Your task to perform on an android device: Is it going to rain tomorrow? Image 0: 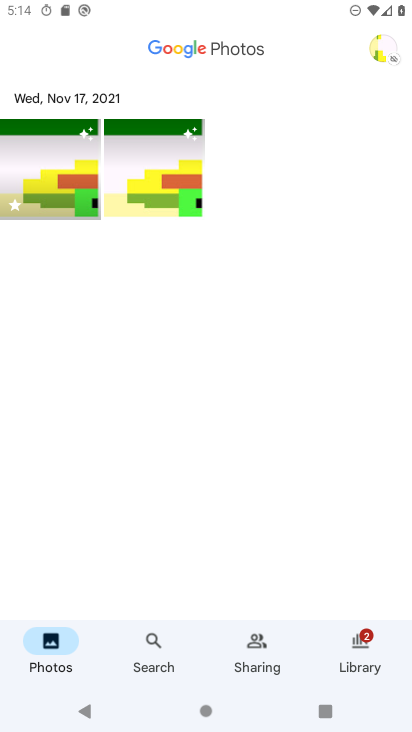
Step 0: press home button
Your task to perform on an android device: Is it going to rain tomorrow? Image 1: 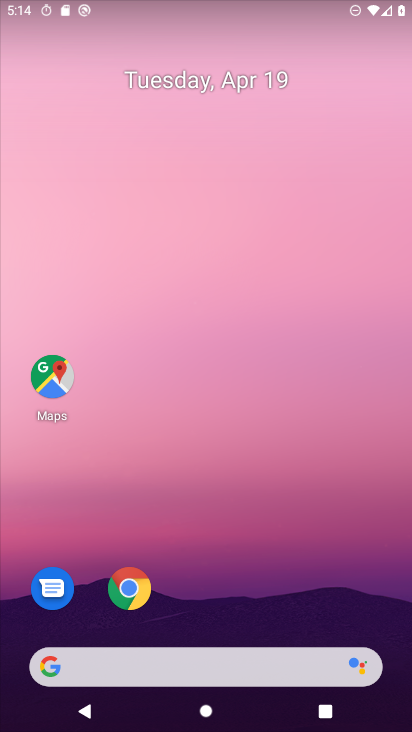
Step 1: click (172, 674)
Your task to perform on an android device: Is it going to rain tomorrow? Image 2: 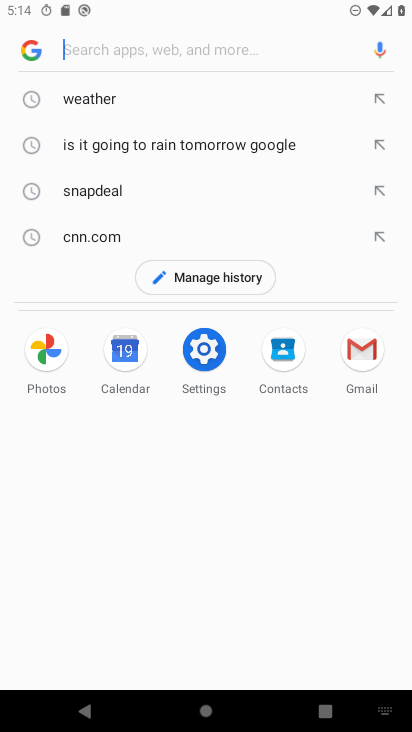
Step 2: click (157, 140)
Your task to perform on an android device: Is it going to rain tomorrow? Image 3: 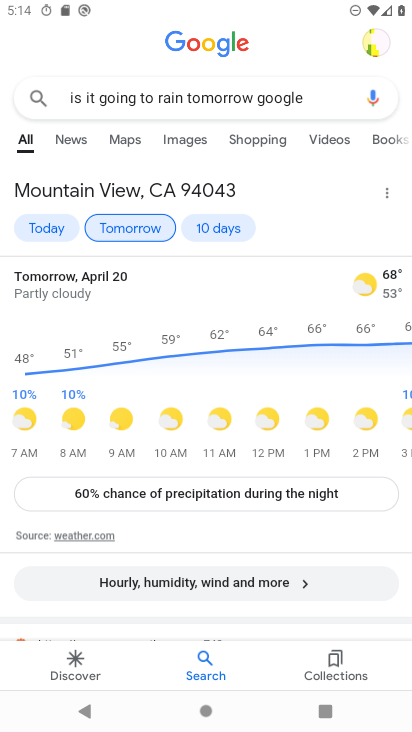
Step 3: task complete